Your task to perform on an android device: Clear all items from cart on amazon.com. Search for jbl charge 4 on amazon.com, select the first entry, and add it to the cart. Image 0: 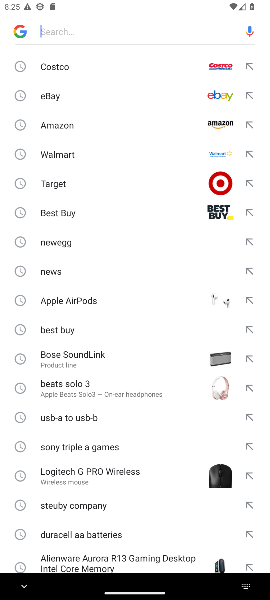
Step 0: press home button
Your task to perform on an android device: Clear all items from cart on amazon.com. Search for jbl charge 4 on amazon.com, select the first entry, and add it to the cart. Image 1: 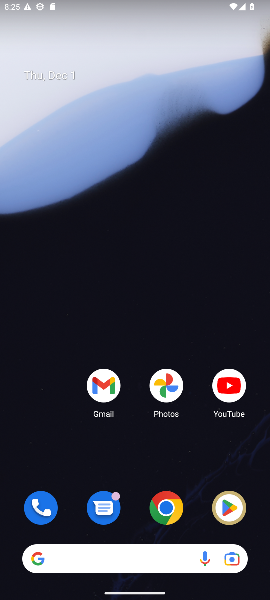
Step 1: click (176, 511)
Your task to perform on an android device: Clear all items from cart on amazon.com. Search for jbl charge 4 on amazon.com, select the first entry, and add it to the cart. Image 2: 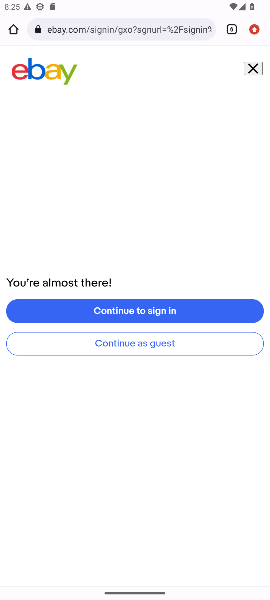
Step 2: click (231, 28)
Your task to perform on an android device: Clear all items from cart on amazon.com. Search for jbl charge 4 on amazon.com, select the first entry, and add it to the cart. Image 3: 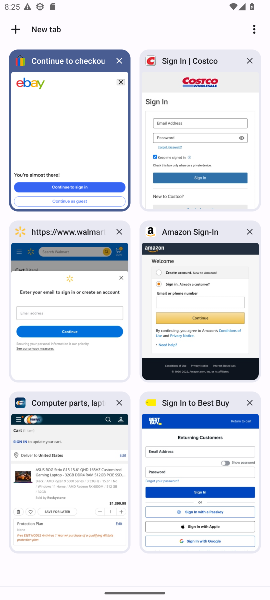
Step 3: click (195, 314)
Your task to perform on an android device: Clear all items from cart on amazon.com. Search for jbl charge 4 on amazon.com, select the first entry, and add it to the cart. Image 4: 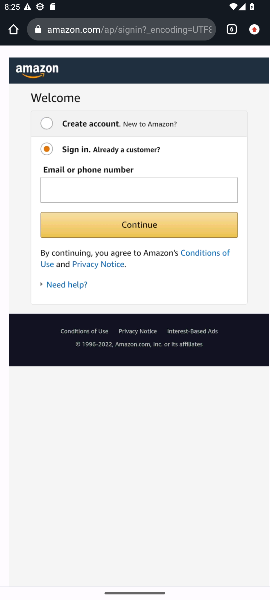
Step 4: press back button
Your task to perform on an android device: Clear all items from cart on amazon.com. Search for jbl charge 4 on amazon.com, select the first entry, and add it to the cart. Image 5: 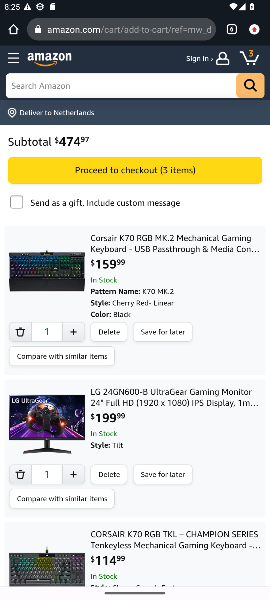
Step 5: click (106, 334)
Your task to perform on an android device: Clear all items from cart on amazon.com. Search for jbl charge 4 on amazon.com, select the first entry, and add it to the cart. Image 6: 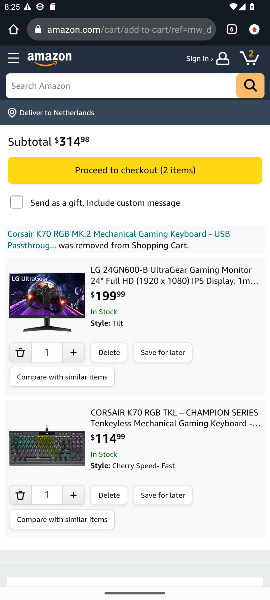
Step 6: click (106, 356)
Your task to perform on an android device: Clear all items from cart on amazon.com. Search for jbl charge 4 on amazon.com, select the first entry, and add it to the cart. Image 7: 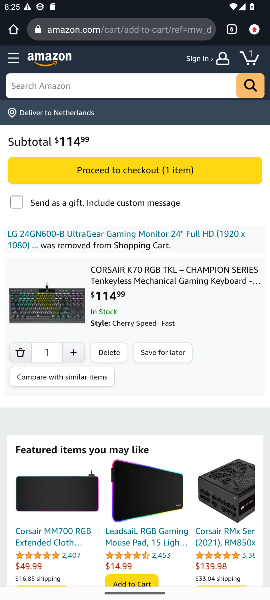
Step 7: click (106, 356)
Your task to perform on an android device: Clear all items from cart on amazon.com. Search for jbl charge 4 on amazon.com, select the first entry, and add it to the cart. Image 8: 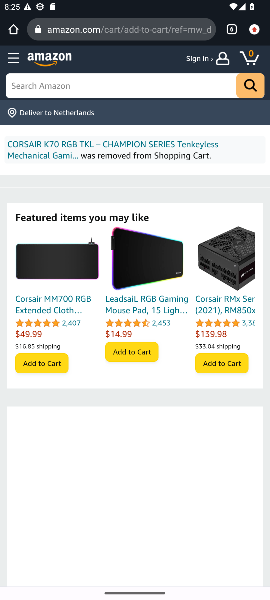
Step 8: click (63, 86)
Your task to perform on an android device: Clear all items from cart on amazon.com. Search for jbl charge 4 on amazon.com, select the first entry, and add it to the cart. Image 9: 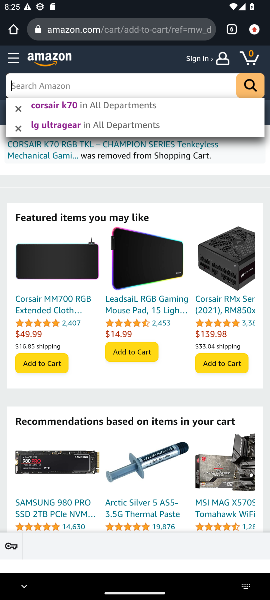
Step 9: type "jbl charge 4"
Your task to perform on an android device: Clear all items from cart on amazon.com. Search for jbl charge 4 on amazon.com, select the first entry, and add it to the cart. Image 10: 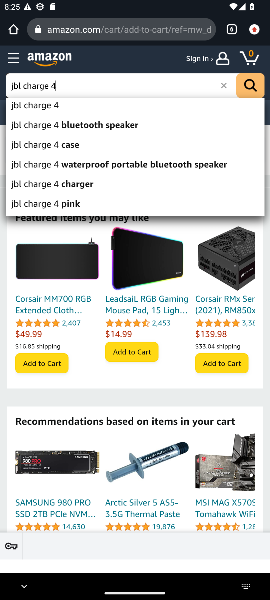
Step 10: click (252, 86)
Your task to perform on an android device: Clear all items from cart on amazon.com. Search for jbl charge 4 on amazon.com, select the first entry, and add it to the cart. Image 11: 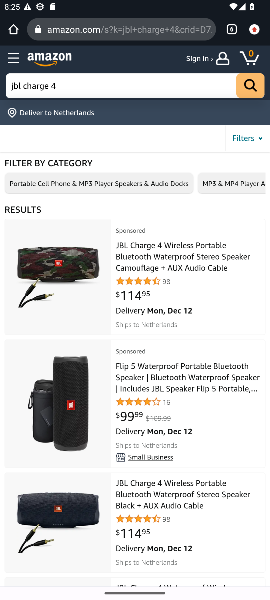
Step 11: click (185, 263)
Your task to perform on an android device: Clear all items from cart on amazon.com. Search for jbl charge 4 on amazon.com, select the first entry, and add it to the cart. Image 12: 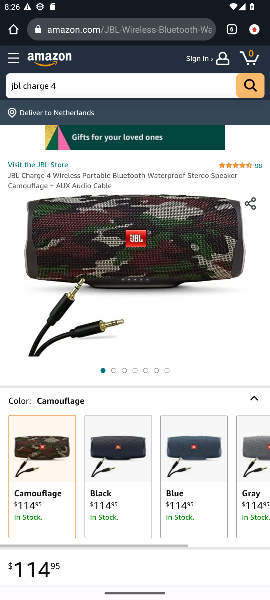
Step 12: drag from (159, 389) to (168, 134)
Your task to perform on an android device: Clear all items from cart on amazon.com. Search for jbl charge 4 on amazon.com, select the first entry, and add it to the cart. Image 13: 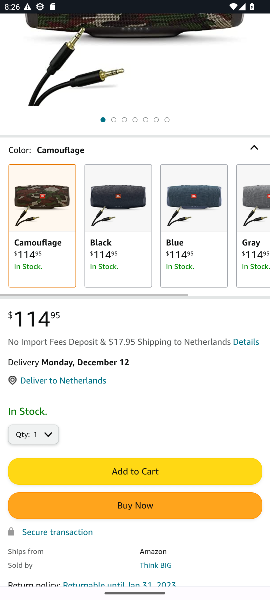
Step 13: click (121, 479)
Your task to perform on an android device: Clear all items from cart on amazon.com. Search for jbl charge 4 on amazon.com, select the first entry, and add it to the cart. Image 14: 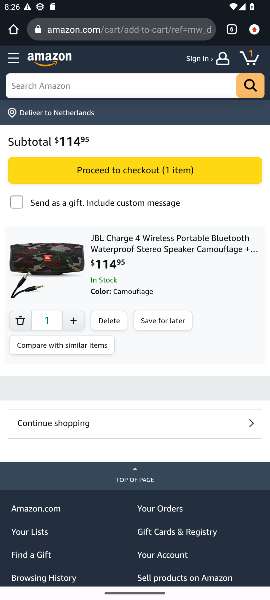
Step 14: task complete